Your task to perform on an android device: refresh tabs in the chrome app Image 0: 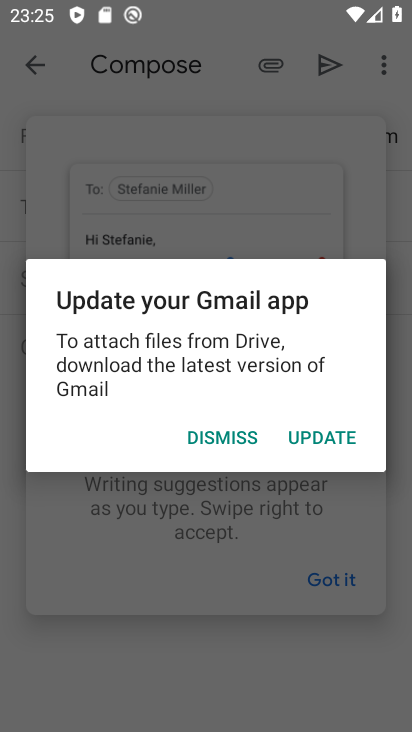
Step 0: press home button
Your task to perform on an android device: refresh tabs in the chrome app Image 1: 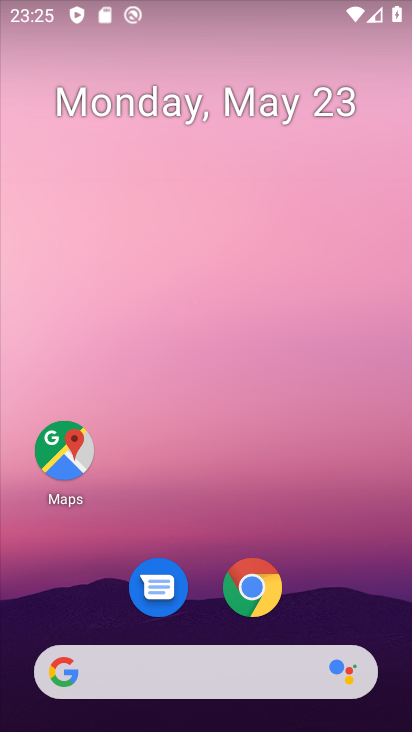
Step 1: click (251, 586)
Your task to perform on an android device: refresh tabs in the chrome app Image 2: 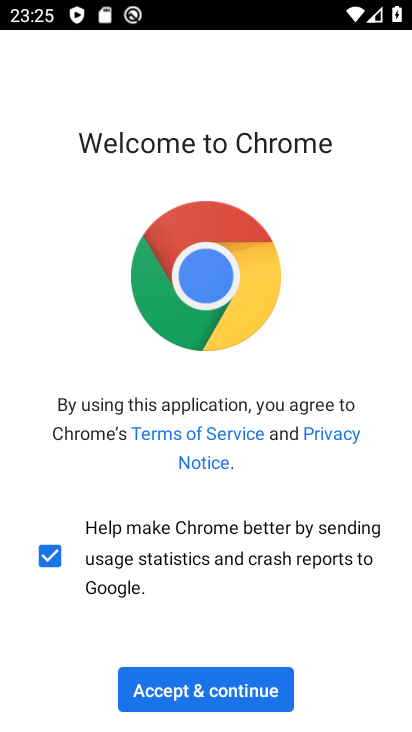
Step 2: click (212, 691)
Your task to perform on an android device: refresh tabs in the chrome app Image 3: 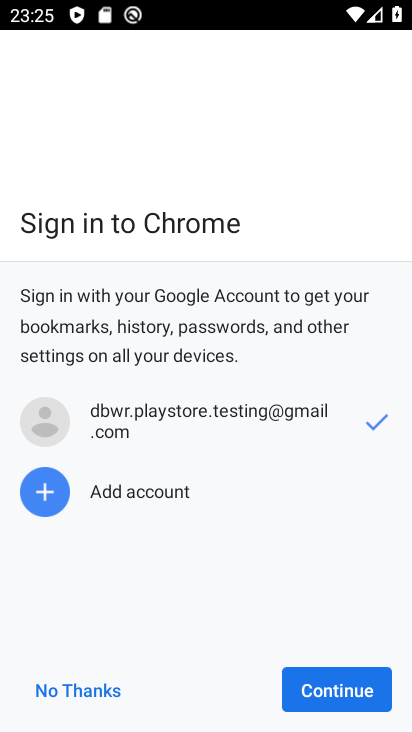
Step 3: click (334, 692)
Your task to perform on an android device: refresh tabs in the chrome app Image 4: 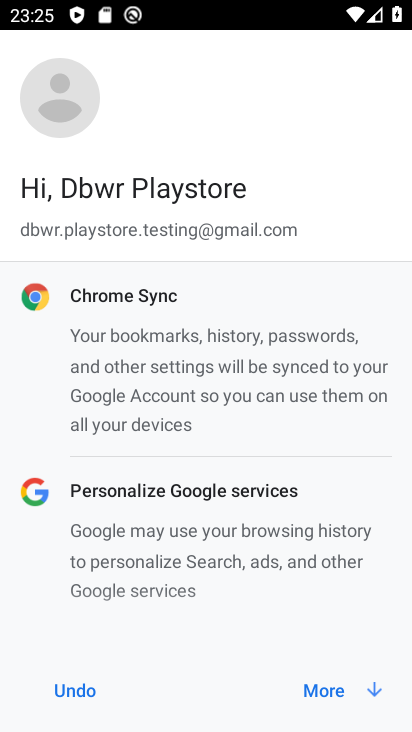
Step 4: click (334, 692)
Your task to perform on an android device: refresh tabs in the chrome app Image 5: 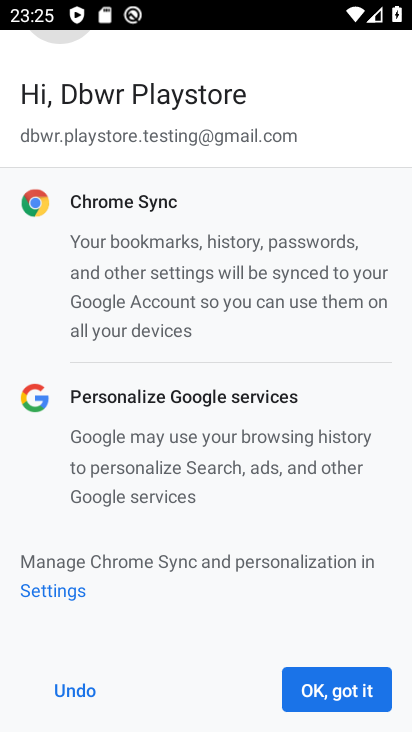
Step 5: click (334, 692)
Your task to perform on an android device: refresh tabs in the chrome app Image 6: 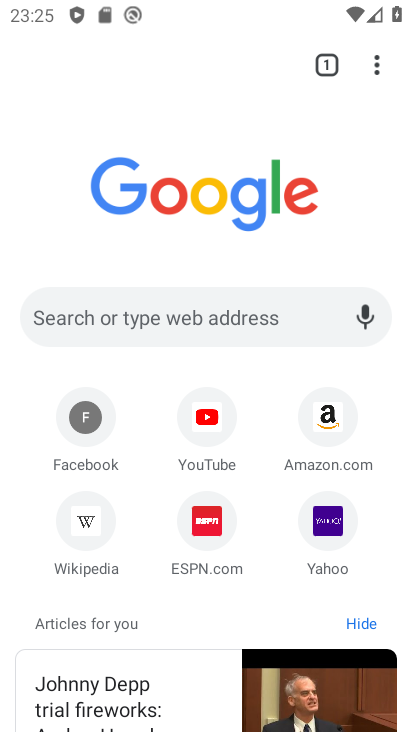
Step 6: click (378, 68)
Your task to perform on an android device: refresh tabs in the chrome app Image 7: 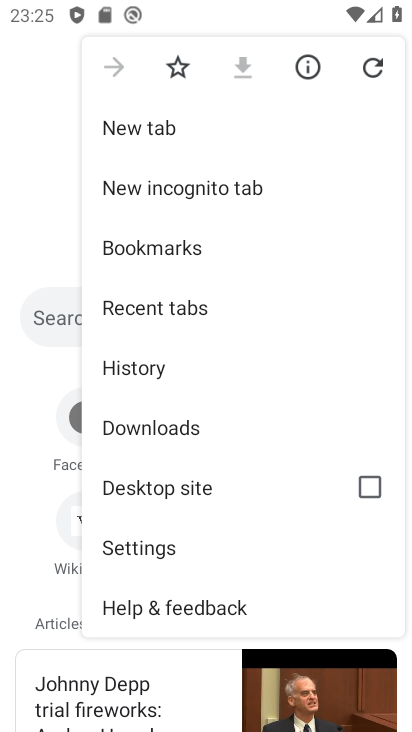
Step 7: click (378, 68)
Your task to perform on an android device: refresh tabs in the chrome app Image 8: 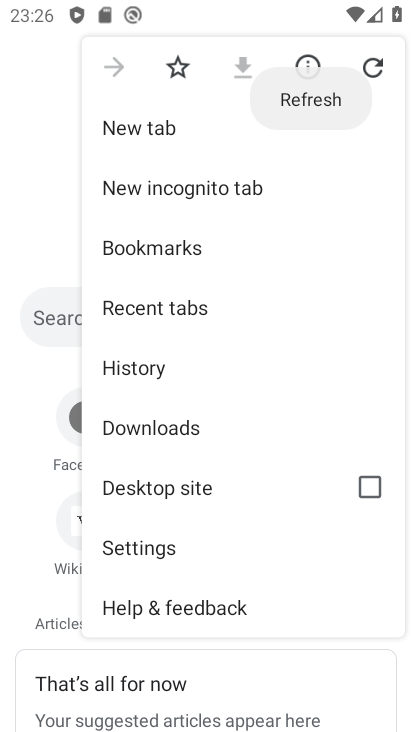
Step 8: click (378, 69)
Your task to perform on an android device: refresh tabs in the chrome app Image 9: 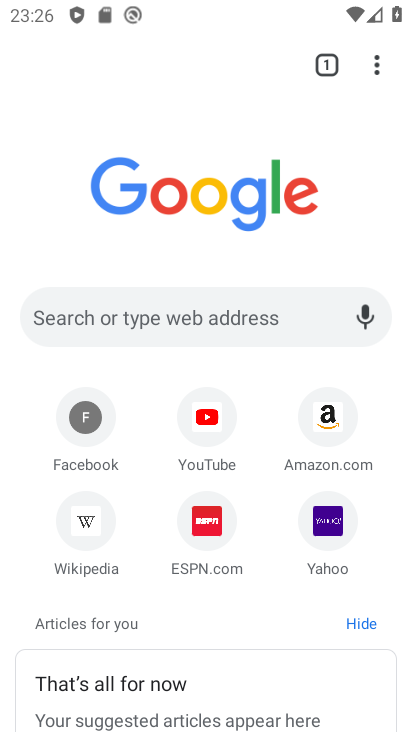
Step 9: task complete